Your task to perform on an android device: check data usage Image 0: 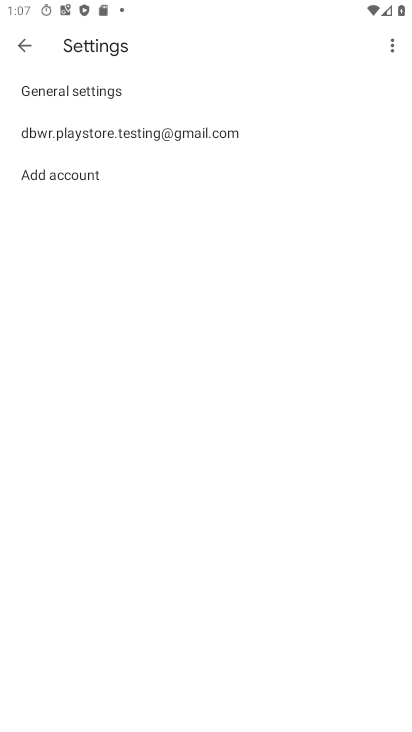
Step 0: press home button
Your task to perform on an android device: check data usage Image 1: 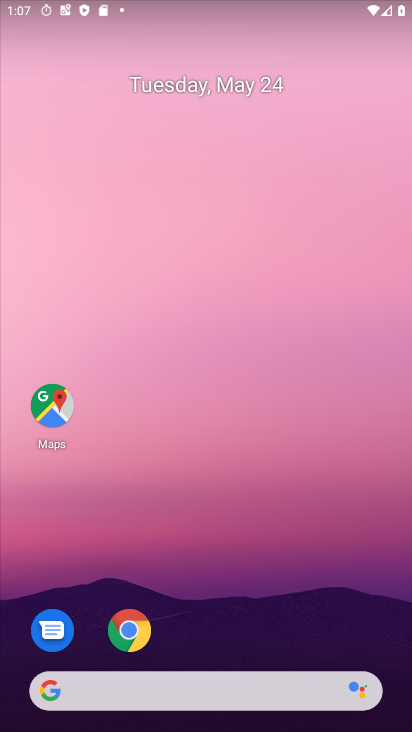
Step 1: drag from (305, 637) to (310, 8)
Your task to perform on an android device: check data usage Image 2: 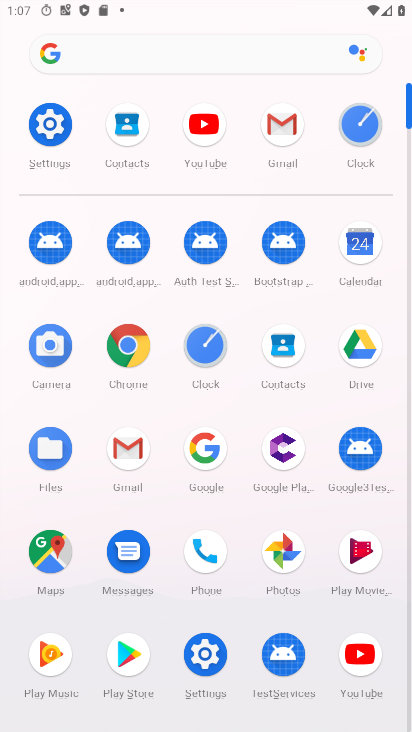
Step 2: click (48, 126)
Your task to perform on an android device: check data usage Image 3: 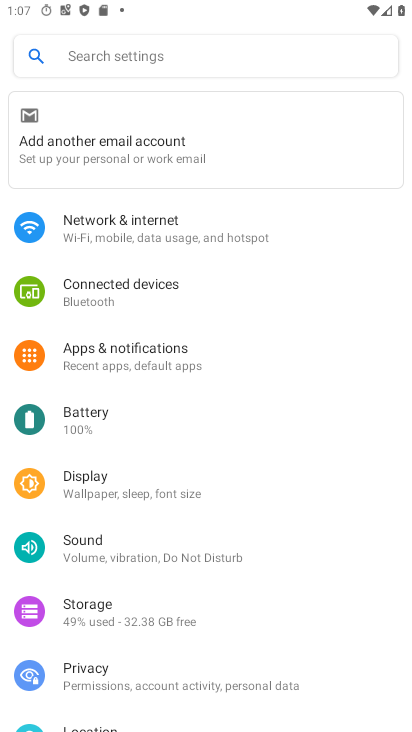
Step 3: click (95, 235)
Your task to perform on an android device: check data usage Image 4: 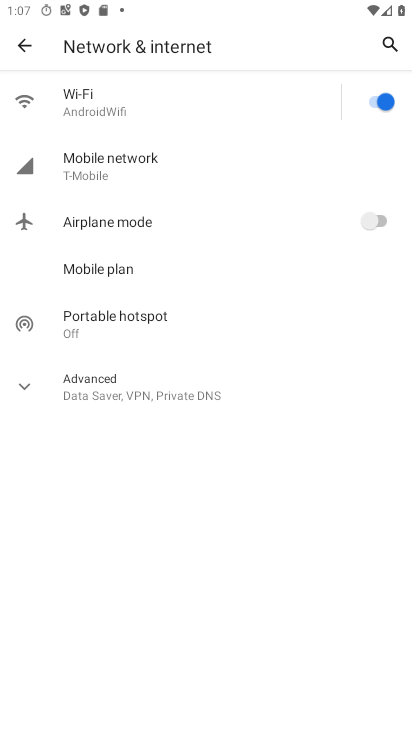
Step 4: click (89, 164)
Your task to perform on an android device: check data usage Image 5: 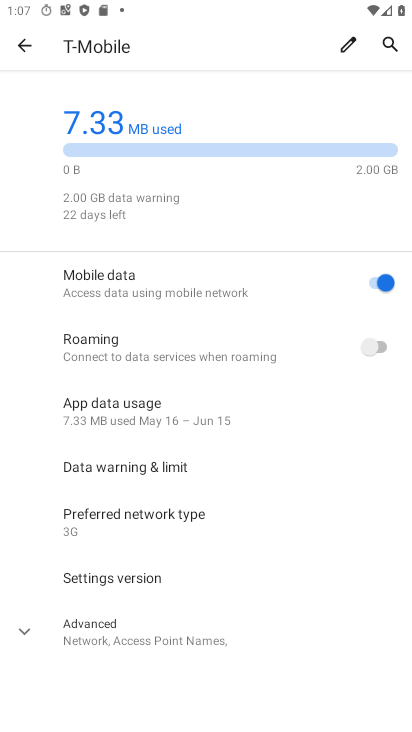
Step 5: click (104, 414)
Your task to perform on an android device: check data usage Image 6: 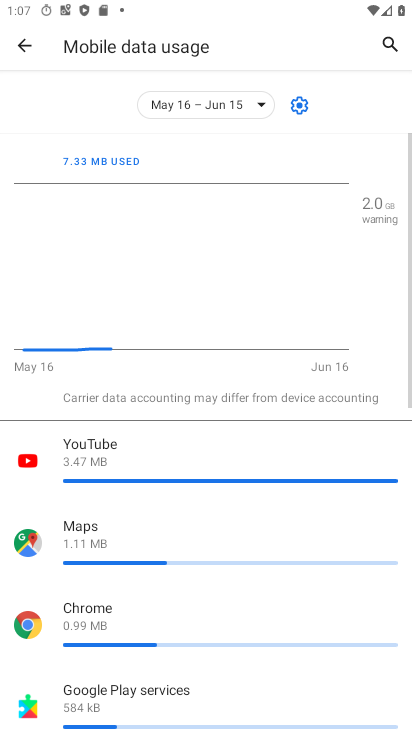
Step 6: task complete